Your task to perform on an android device: Open Google Maps Image 0: 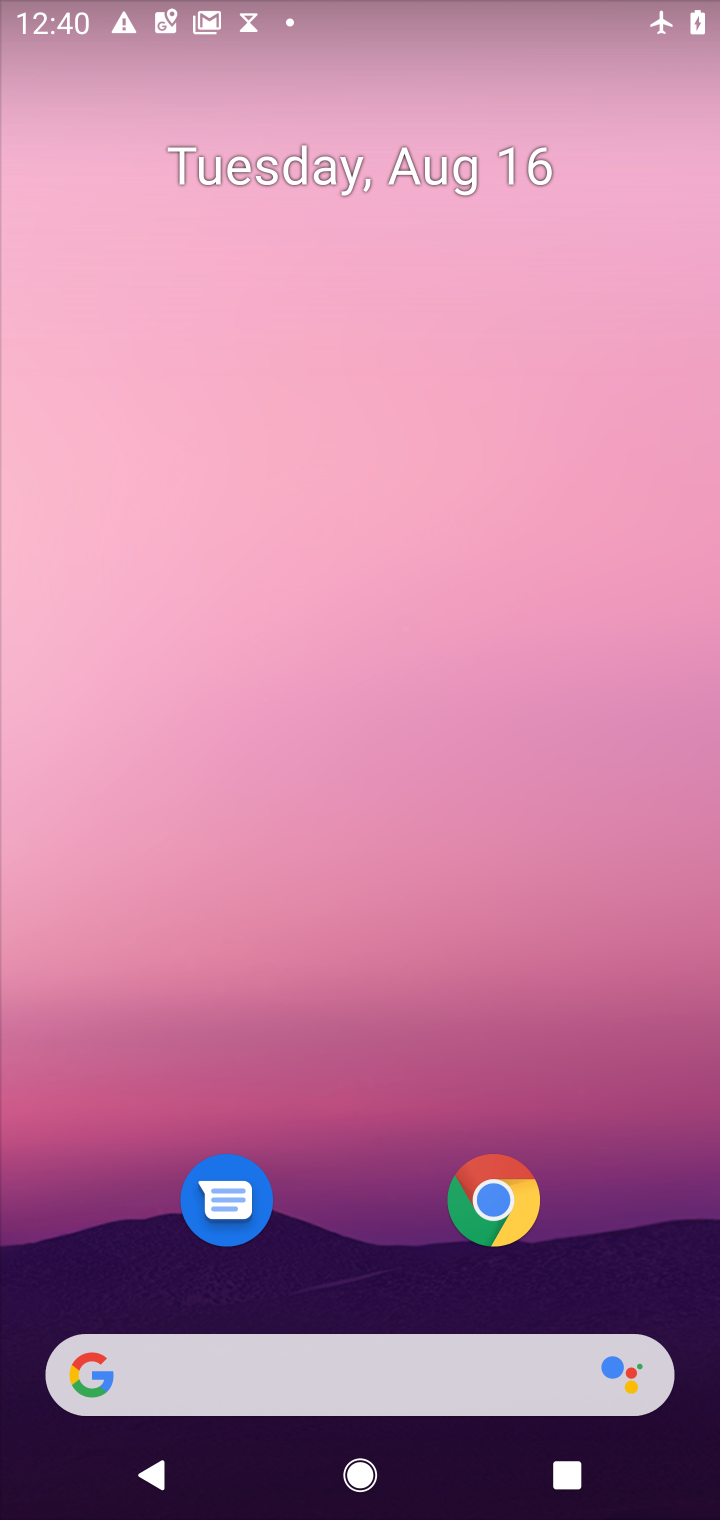
Step 0: drag from (373, 986) to (388, 331)
Your task to perform on an android device: Open Google Maps Image 1: 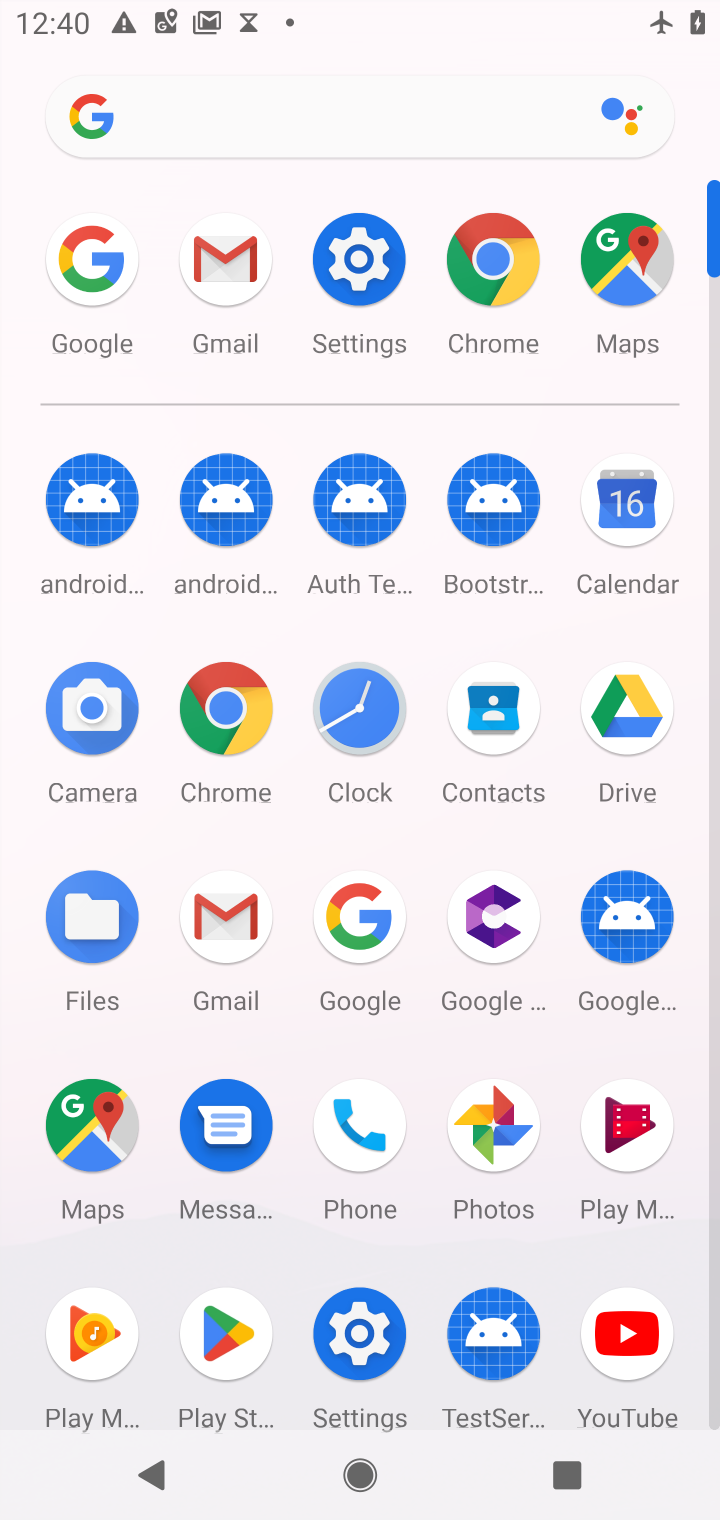
Step 1: click (98, 1114)
Your task to perform on an android device: Open Google Maps Image 2: 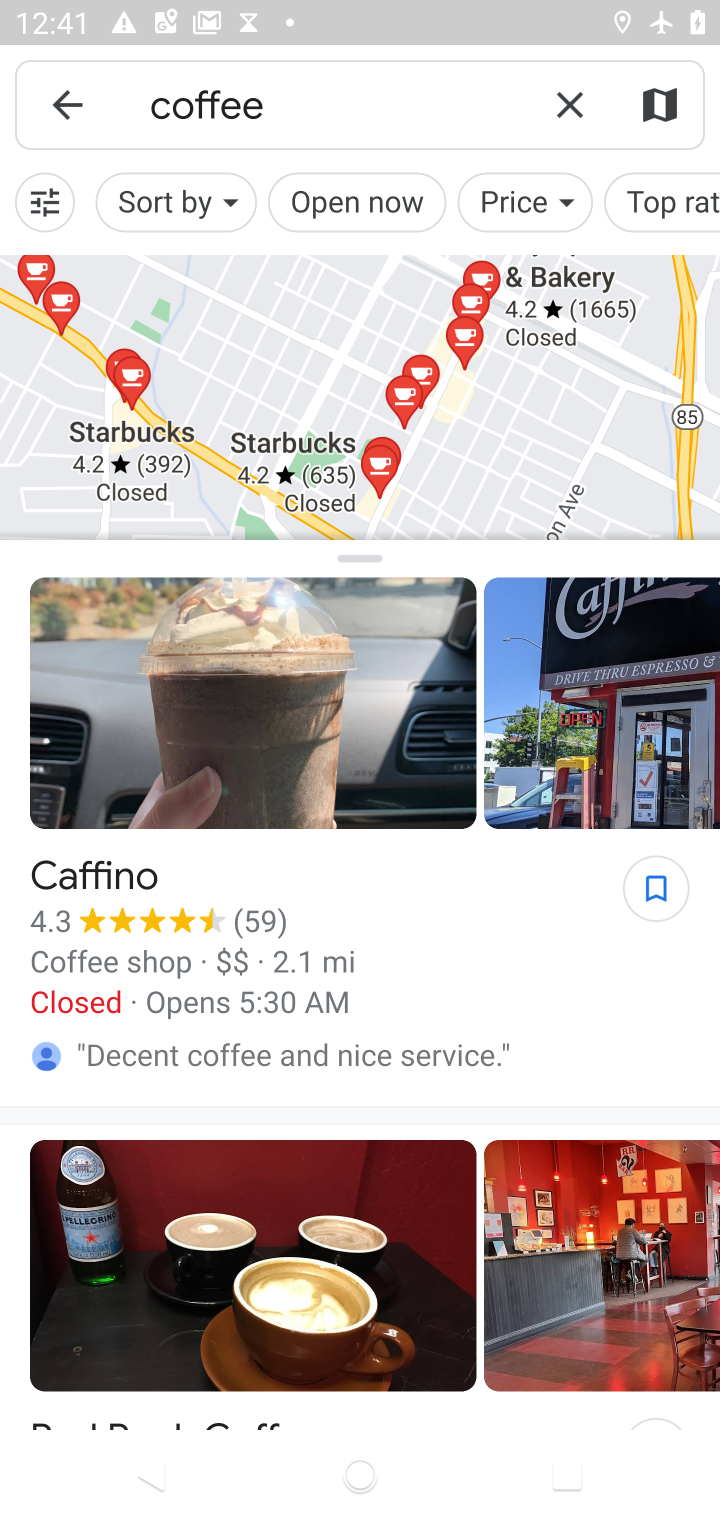
Step 2: click (563, 93)
Your task to perform on an android device: Open Google Maps Image 3: 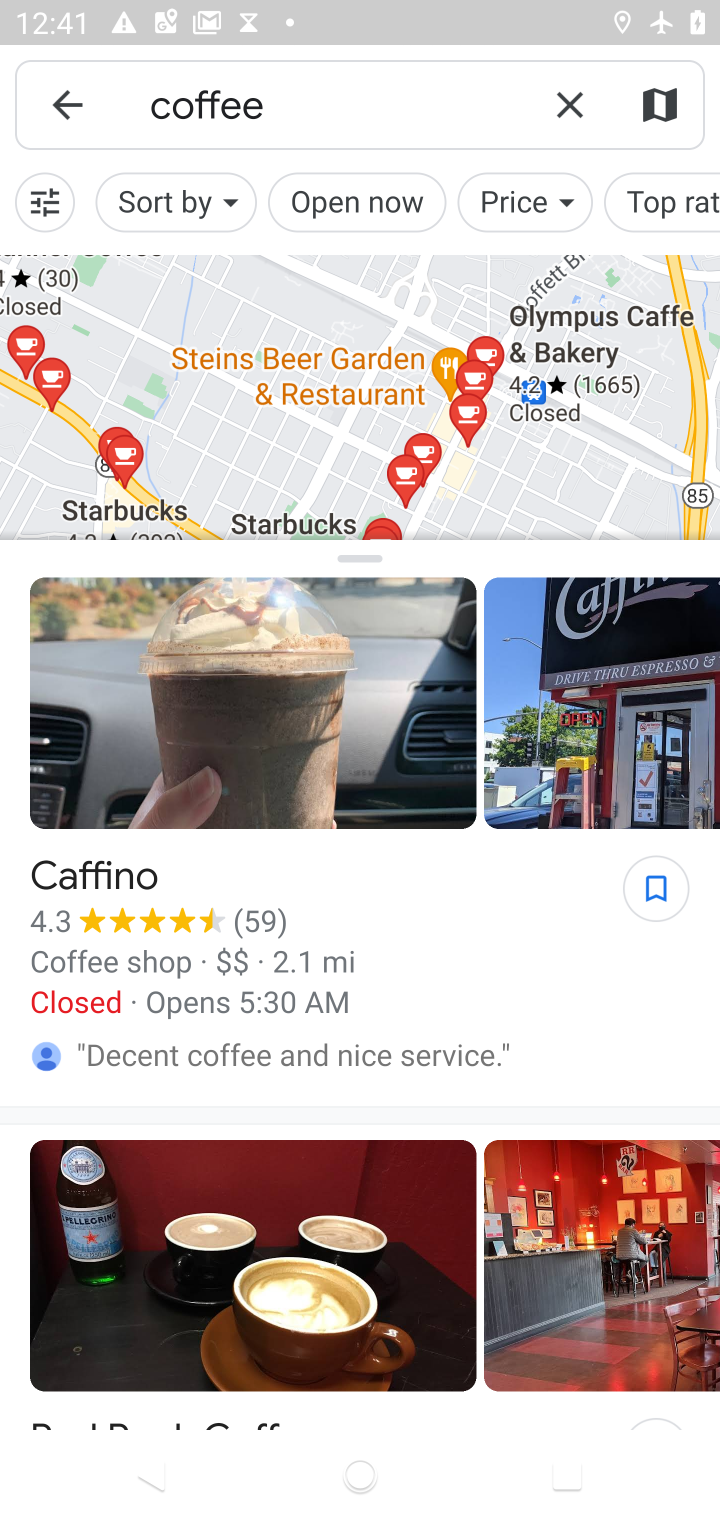
Step 3: task complete